Your task to perform on an android device: see tabs open on other devices in the chrome app Image 0: 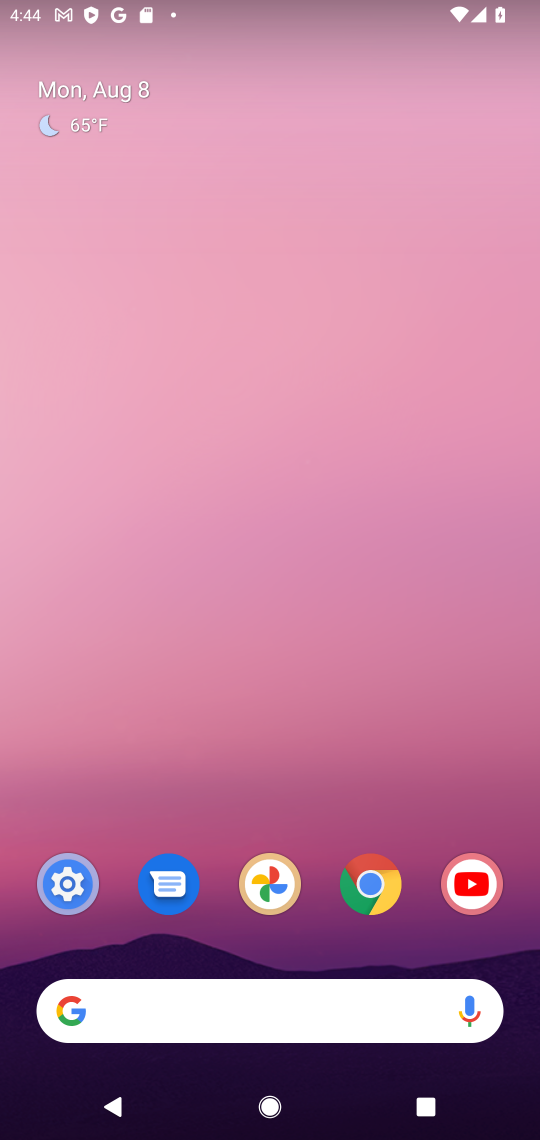
Step 0: click (368, 893)
Your task to perform on an android device: see tabs open on other devices in the chrome app Image 1: 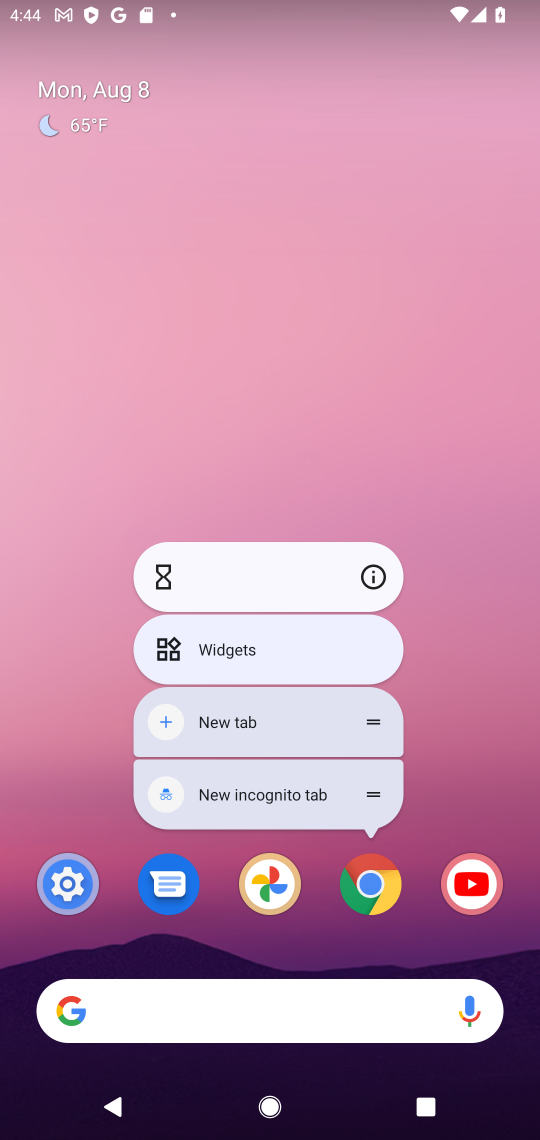
Step 1: click (367, 908)
Your task to perform on an android device: see tabs open on other devices in the chrome app Image 2: 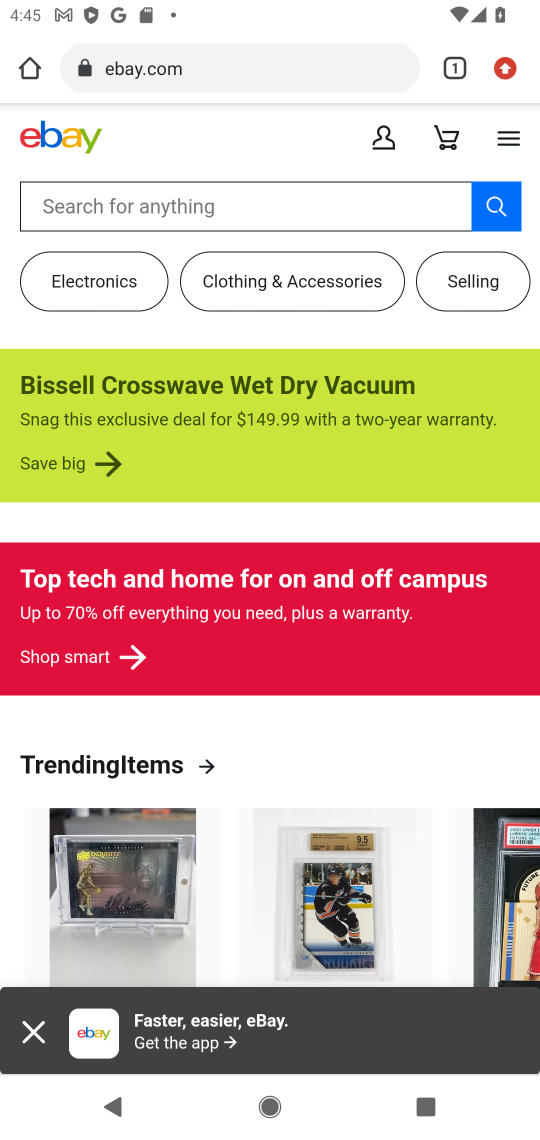
Step 2: task complete